Your task to perform on an android device: When is my next appointment? Image 0: 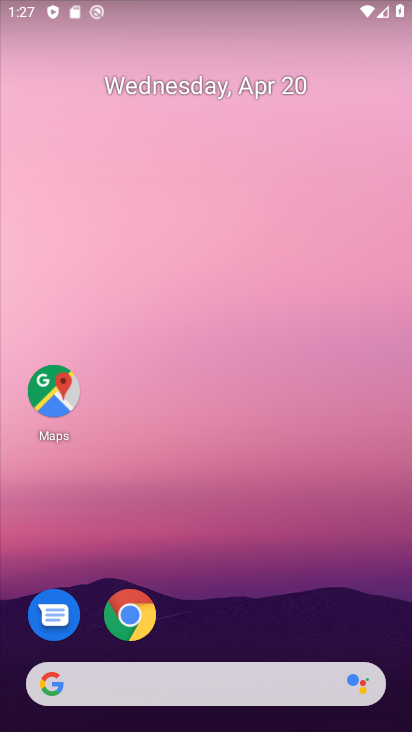
Step 0: drag from (271, 624) to (356, 203)
Your task to perform on an android device: When is my next appointment? Image 1: 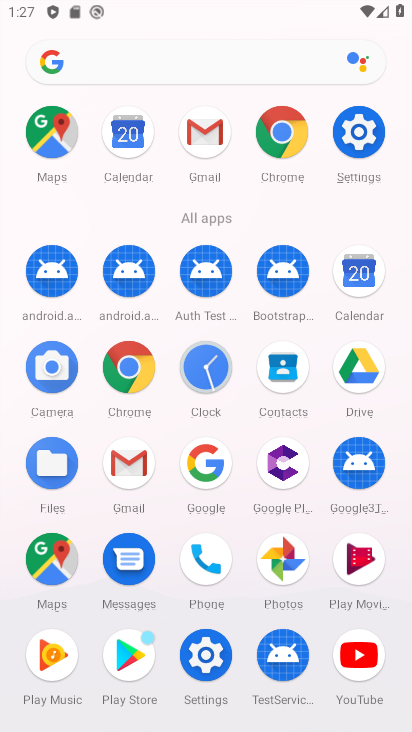
Step 1: click (363, 284)
Your task to perform on an android device: When is my next appointment? Image 2: 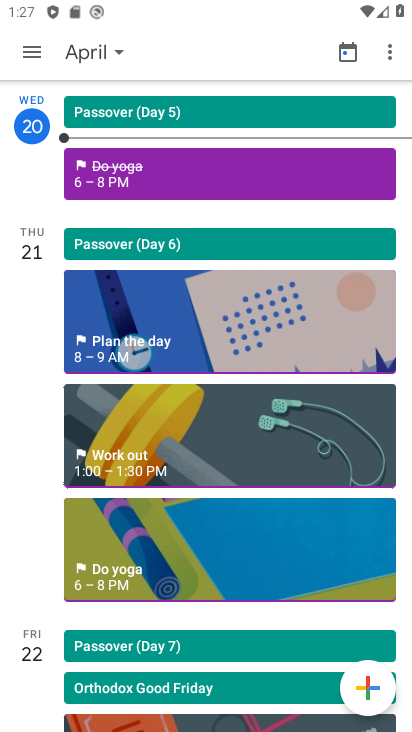
Step 2: click (363, 284)
Your task to perform on an android device: When is my next appointment? Image 3: 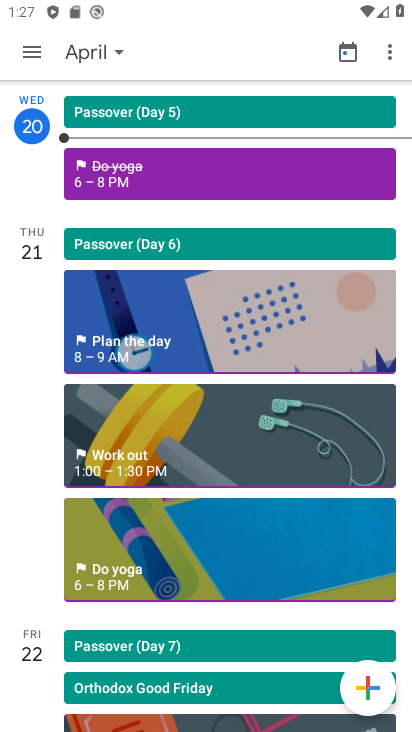
Step 3: click (68, 50)
Your task to perform on an android device: When is my next appointment? Image 4: 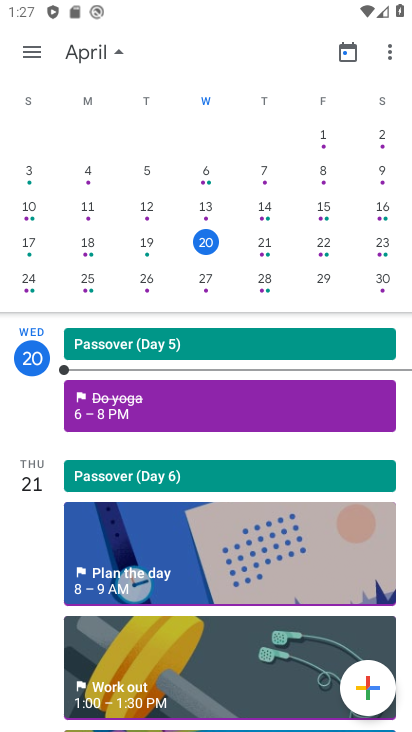
Step 4: click (256, 244)
Your task to perform on an android device: When is my next appointment? Image 5: 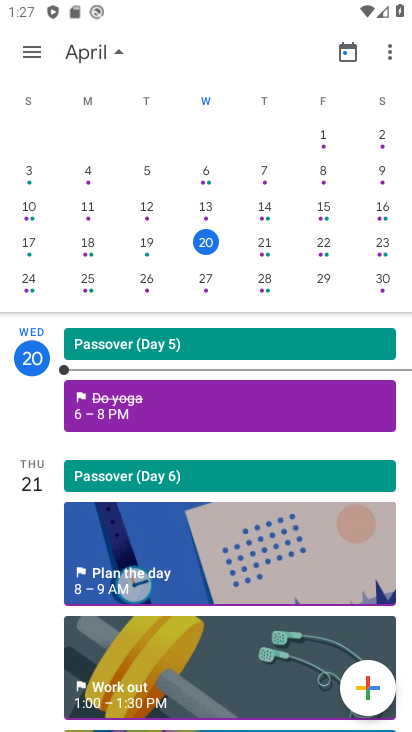
Step 5: task complete